Your task to perform on an android device: move a message to another label in the gmail app Image 0: 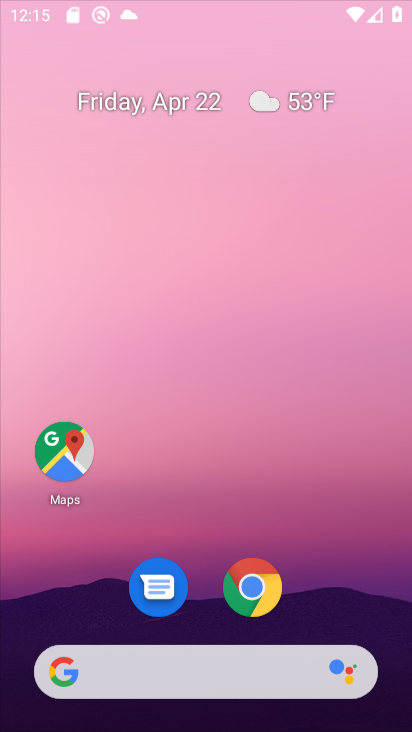
Step 0: click (352, 148)
Your task to perform on an android device: move a message to another label in the gmail app Image 1: 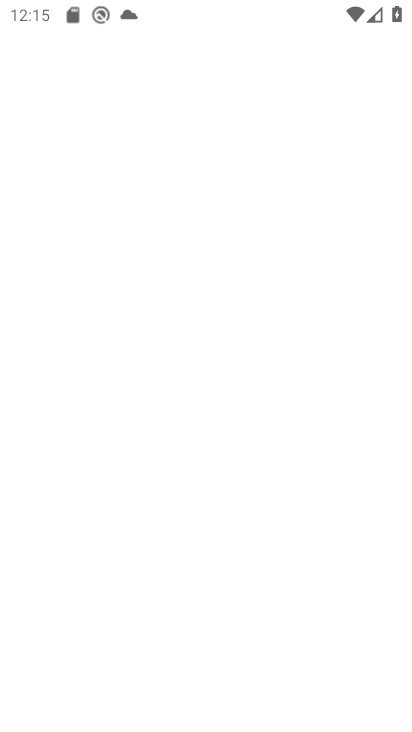
Step 1: press home button
Your task to perform on an android device: move a message to another label in the gmail app Image 2: 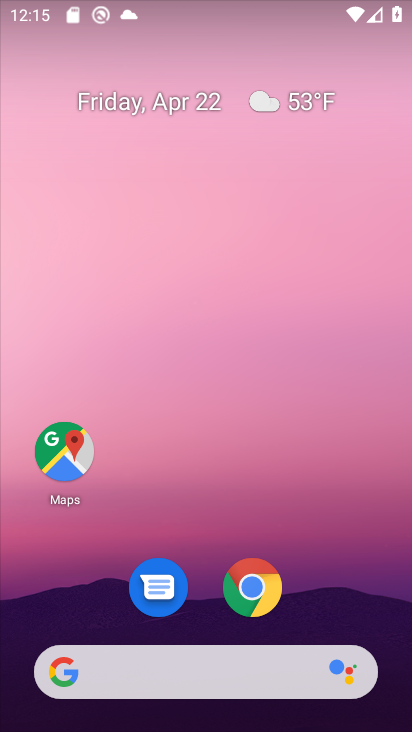
Step 2: drag from (301, 571) to (315, 136)
Your task to perform on an android device: move a message to another label in the gmail app Image 3: 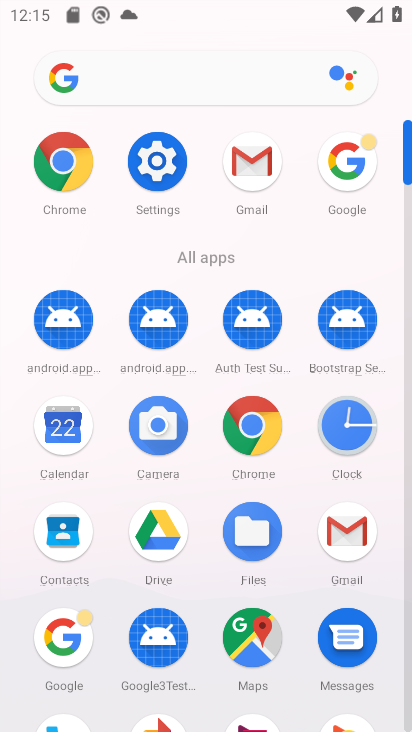
Step 3: click (247, 191)
Your task to perform on an android device: move a message to another label in the gmail app Image 4: 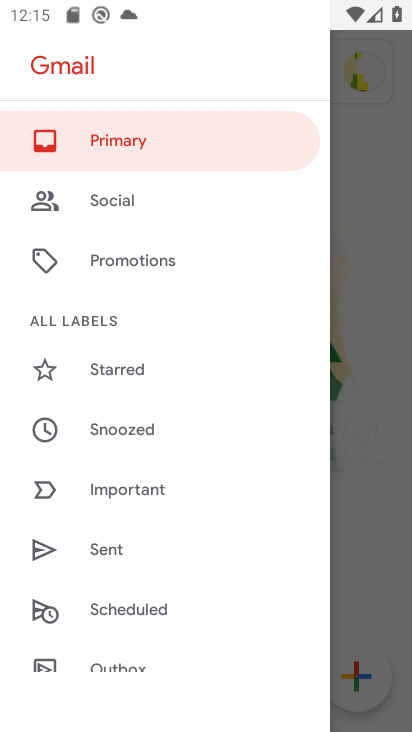
Step 4: click (381, 408)
Your task to perform on an android device: move a message to another label in the gmail app Image 5: 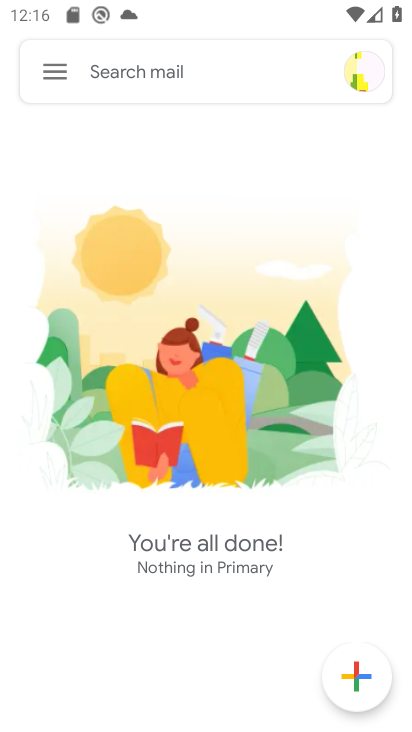
Step 5: task complete